Your task to perform on an android device: Go to Yahoo.com Image 0: 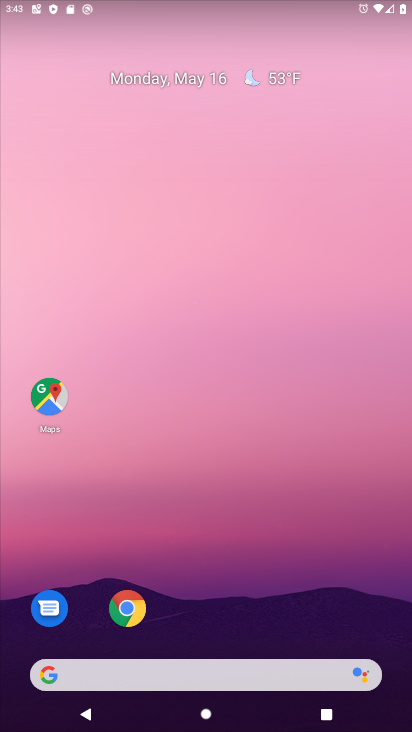
Step 0: click (126, 609)
Your task to perform on an android device: Go to Yahoo.com Image 1: 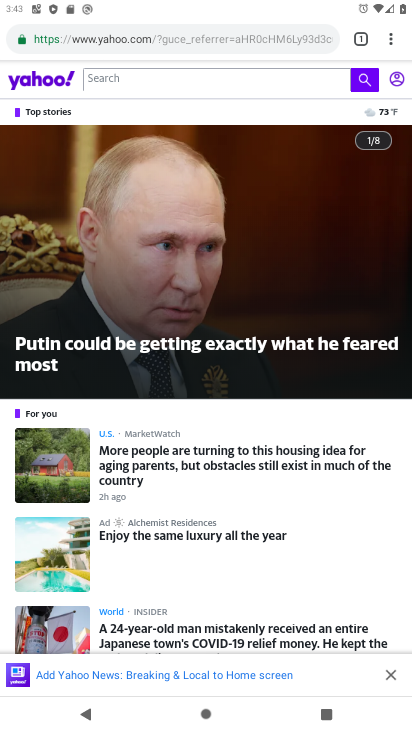
Step 1: task complete